Your task to perform on an android device: set default search engine in the chrome app Image 0: 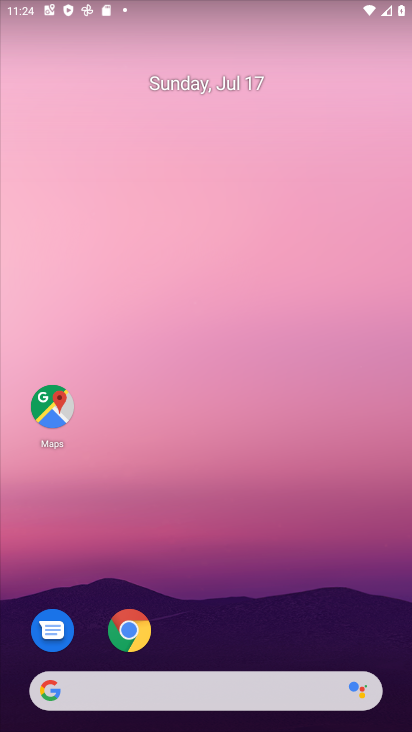
Step 0: click (137, 626)
Your task to perform on an android device: set default search engine in the chrome app Image 1: 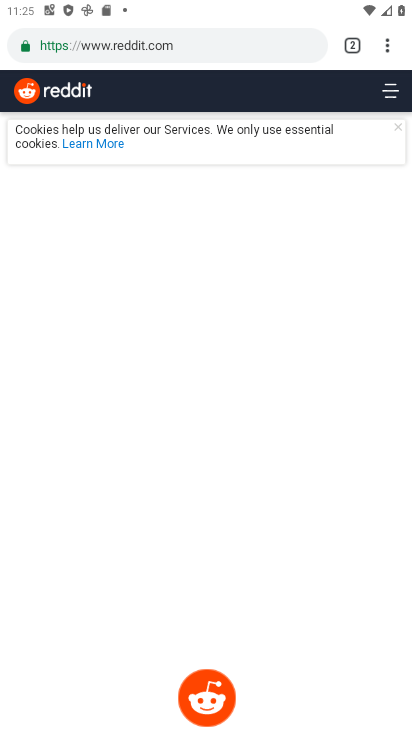
Step 1: click (388, 53)
Your task to perform on an android device: set default search engine in the chrome app Image 2: 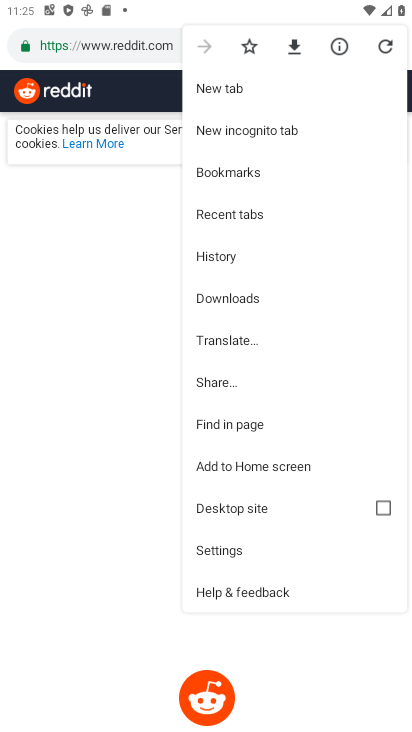
Step 2: click (207, 544)
Your task to perform on an android device: set default search engine in the chrome app Image 3: 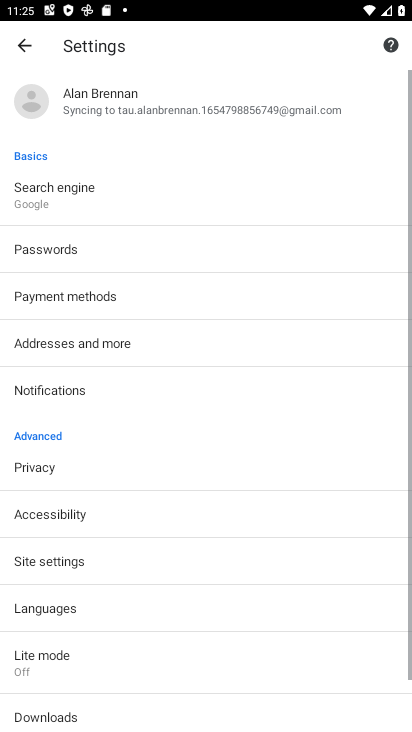
Step 3: click (107, 215)
Your task to perform on an android device: set default search engine in the chrome app Image 4: 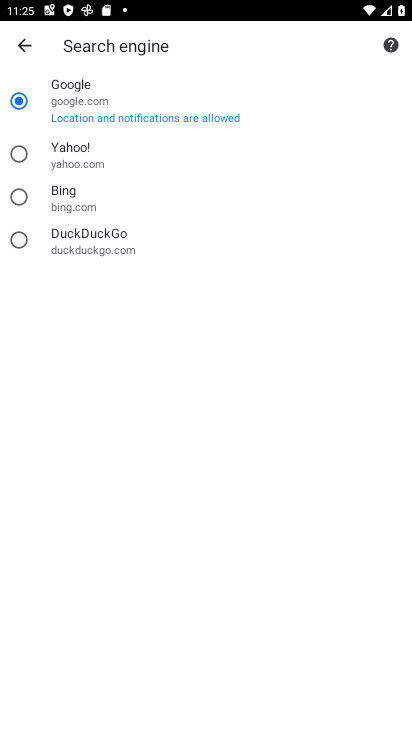
Step 4: click (115, 180)
Your task to perform on an android device: set default search engine in the chrome app Image 5: 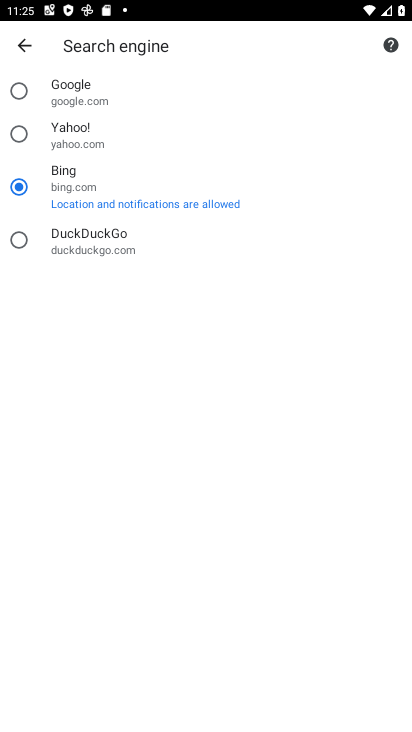
Step 5: task complete